Your task to perform on an android device: Search for seafood restaurants on Google Maps Image 0: 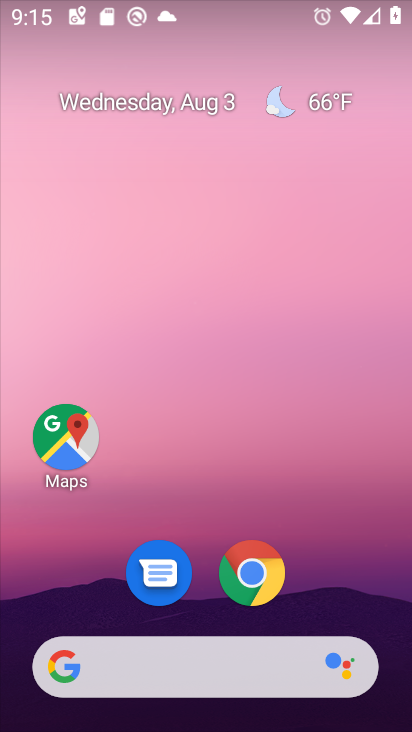
Step 0: click (68, 439)
Your task to perform on an android device: Search for seafood restaurants on Google Maps Image 1: 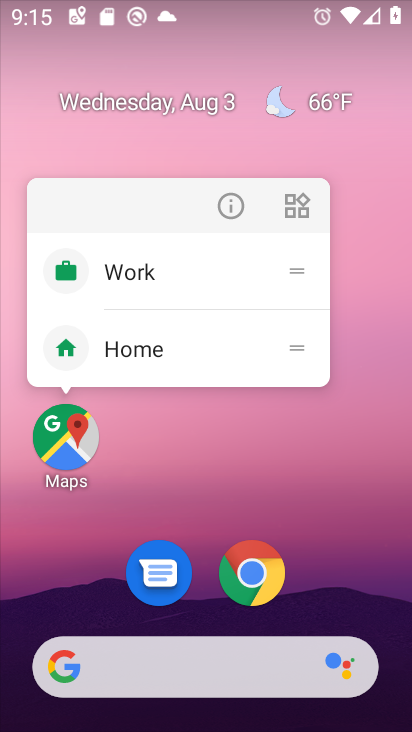
Step 1: click (68, 439)
Your task to perform on an android device: Search for seafood restaurants on Google Maps Image 2: 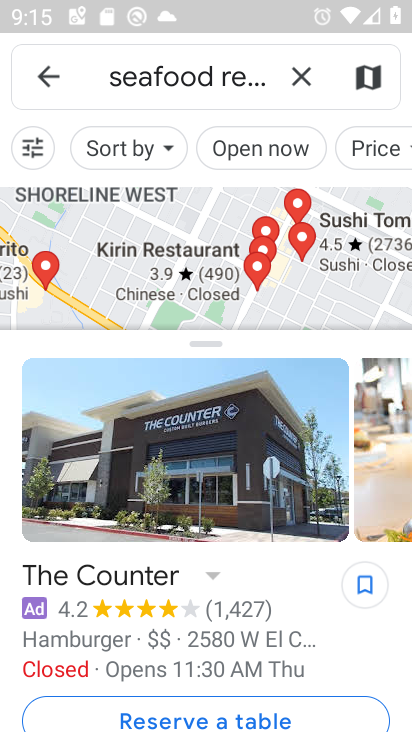
Step 2: task complete